Your task to perform on an android device: visit the assistant section in the google photos Image 0: 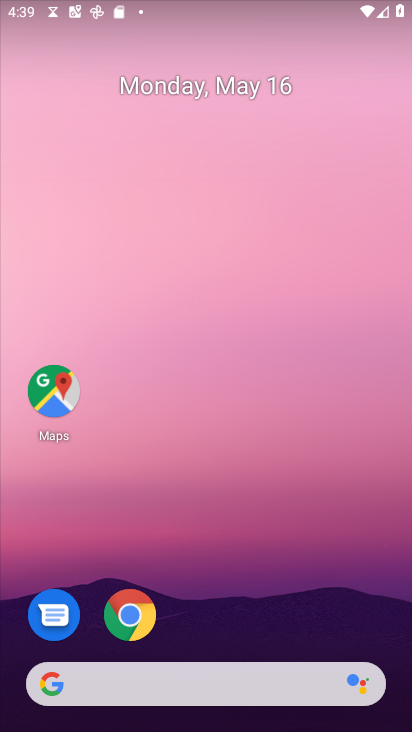
Step 0: drag from (255, 329) to (257, 215)
Your task to perform on an android device: visit the assistant section in the google photos Image 1: 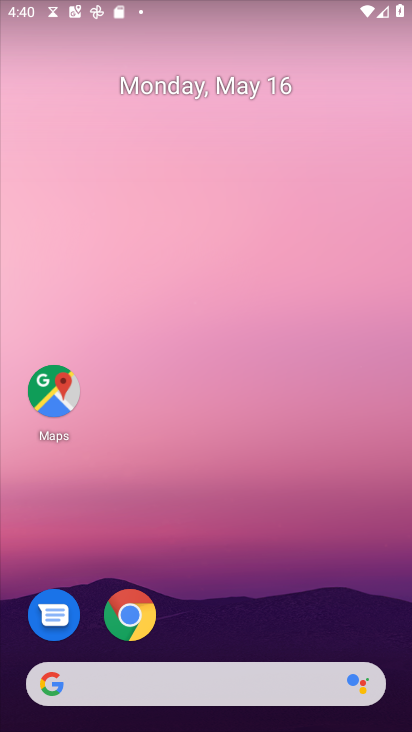
Step 1: drag from (218, 632) to (157, 76)
Your task to perform on an android device: visit the assistant section in the google photos Image 2: 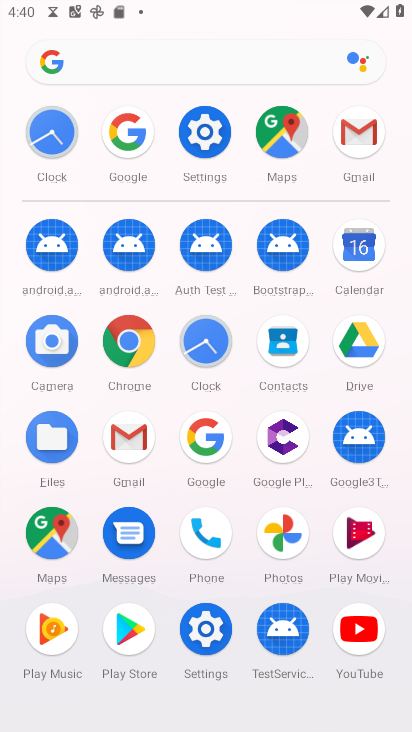
Step 2: click (278, 544)
Your task to perform on an android device: visit the assistant section in the google photos Image 3: 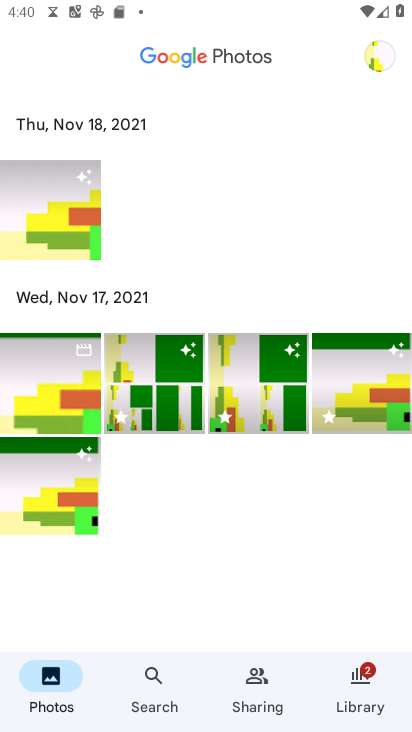
Step 3: click (356, 708)
Your task to perform on an android device: visit the assistant section in the google photos Image 4: 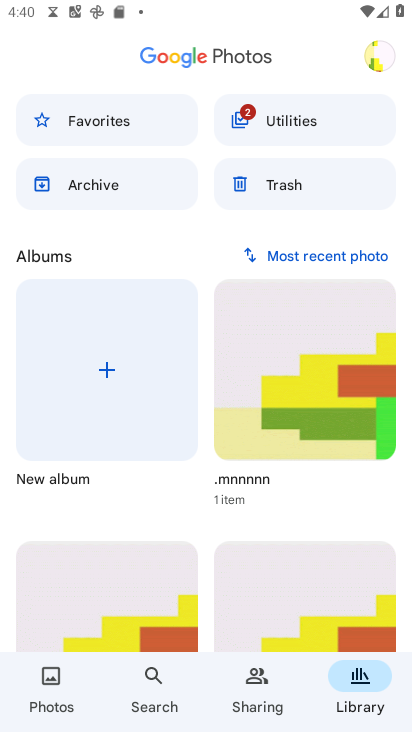
Step 4: drag from (155, 569) to (156, 233)
Your task to perform on an android device: visit the assistant section in the google photos Image 5: 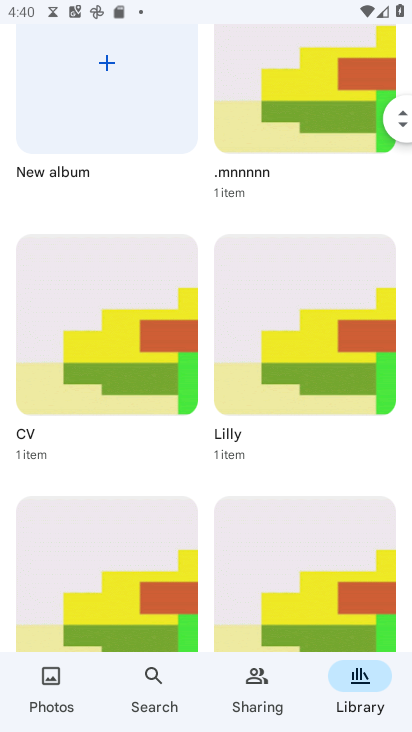
Step 5: drag from (203, 584) to (294, 199)
Your task to perform on an android device: visit the assistant section in the google photos Image 6: 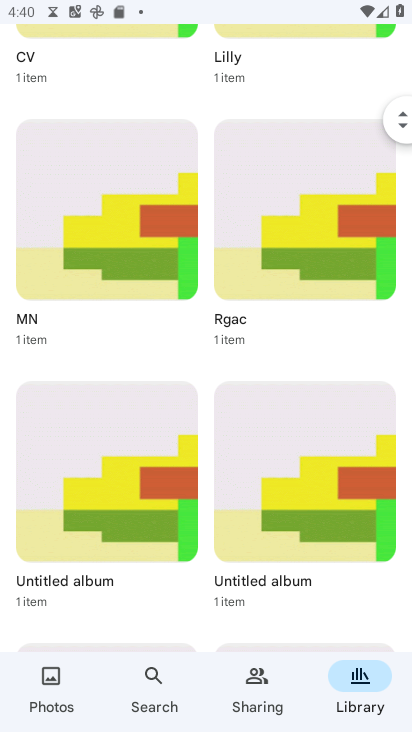
Step 6: drag from (187, 596) to (274, 185)
Your task to perform on an android device: visit the assistant section in the google photos Image 7: 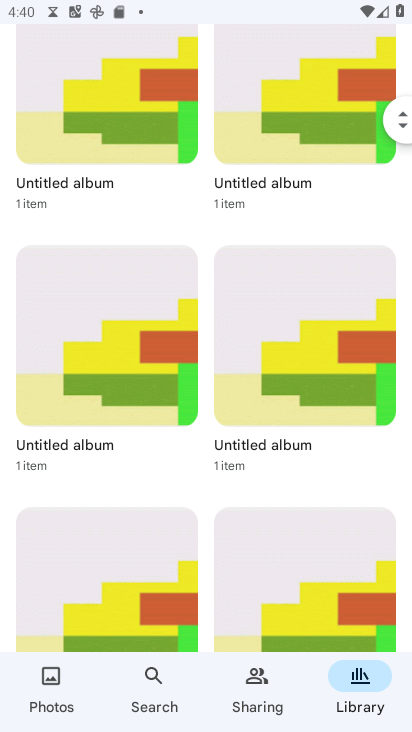
Step 7: click (34, 699)
Your task to perform on an android device: visit the assistant section in the google photos Image 8: 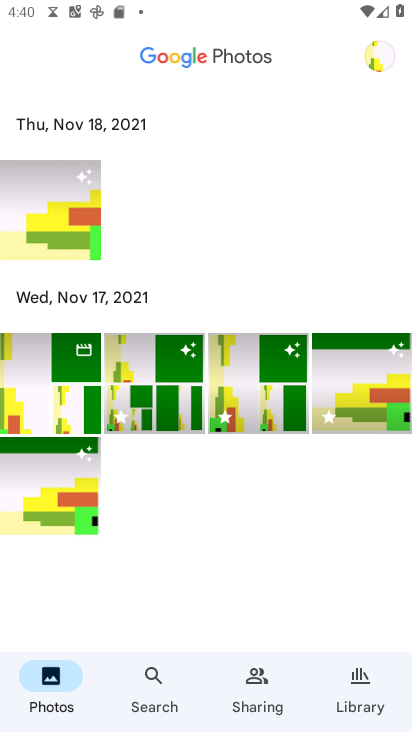
Step 8: click (366, 63)
Your task to perform on an android device: visit the assistant section in the google photos Image 9: 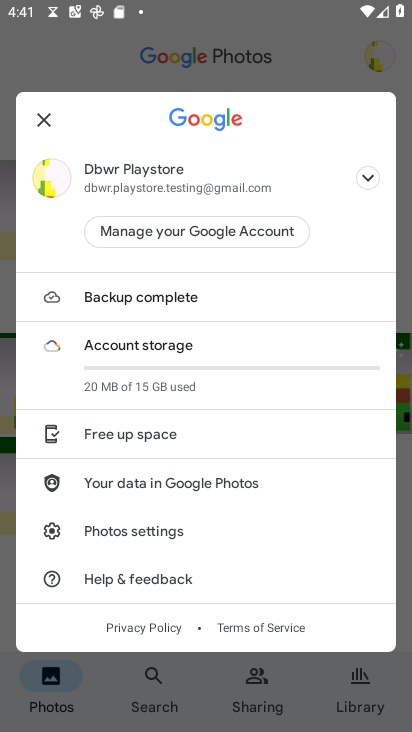
Step 9: task complete